Your task to perform on an android device: turn off translation in the chrome app Image 0: 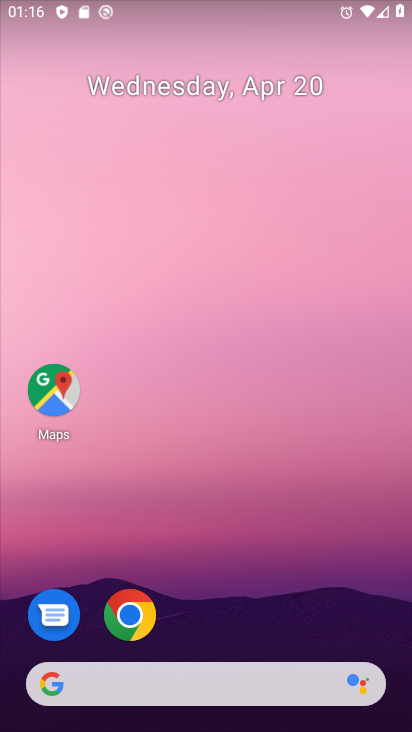
Step 0: click (350, 154)
Your task to perform on an android device: turn off translation in the chrome app Image 1: 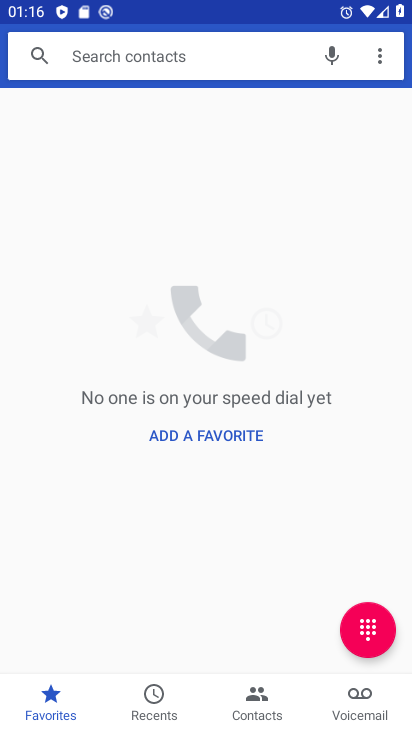
Step 1: press back button
Your task to perform on an android device: turn off translation in the chrome app Image 2: 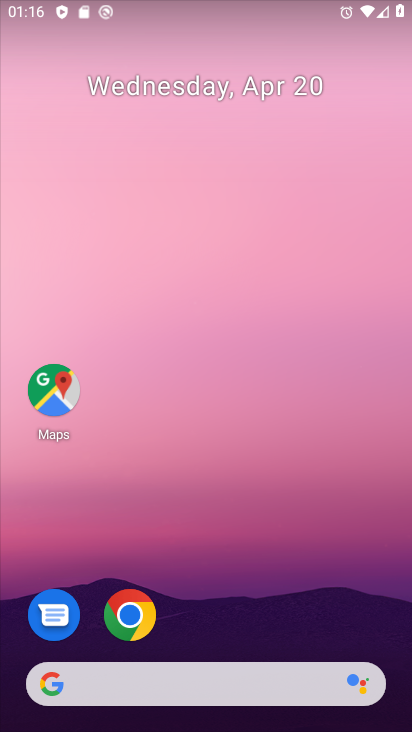
Step 2: drag from (408, 248) to (411, 26)
Your task to perform on an android device: turn off translation in the chrome app Image 3: 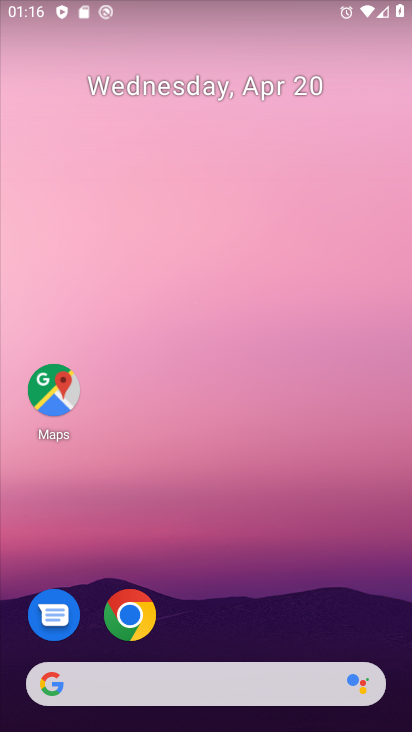
Step 3: drag from (385, 619) to (363, 188)
Your task to perform on an android device: turn off translation in the chrome app Image 4: 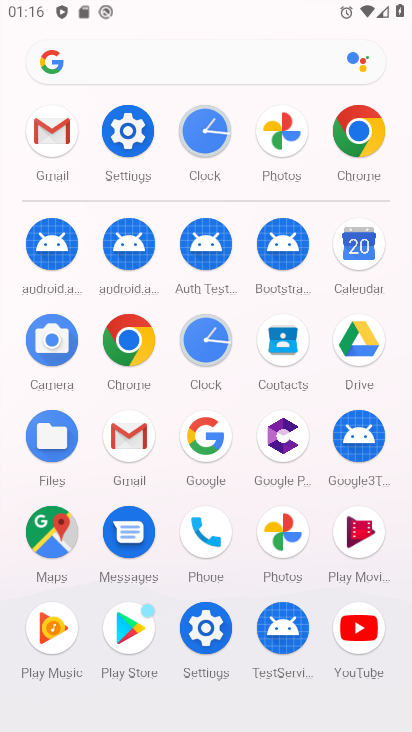
Step 4: click (133, 338)
Your task to perform on an android device: turn off translation in the chrome app Image 5: 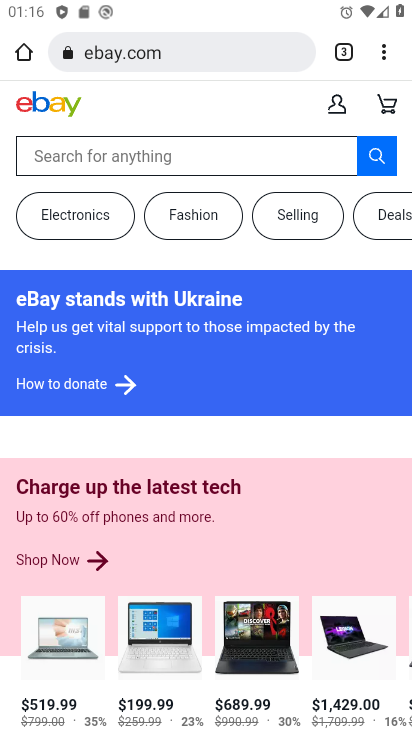
Step 5: click (383, 48)
Your task to perform on an android device: turn off translation in the chrome app Image 6: 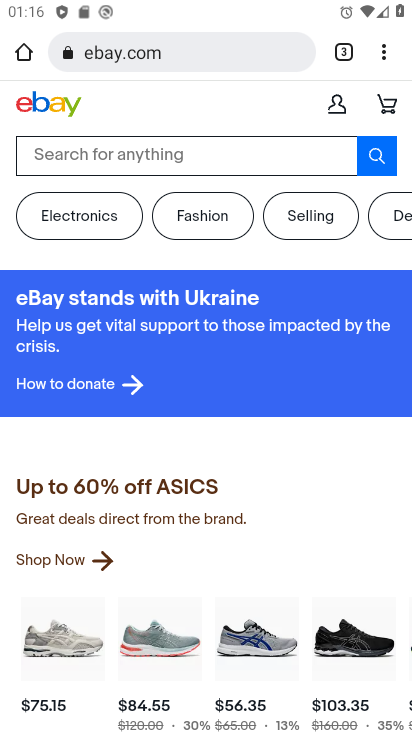
Step 6: click (383, 48)
Your task to perform on an android device: turn off translation in the chrome app Image 7: 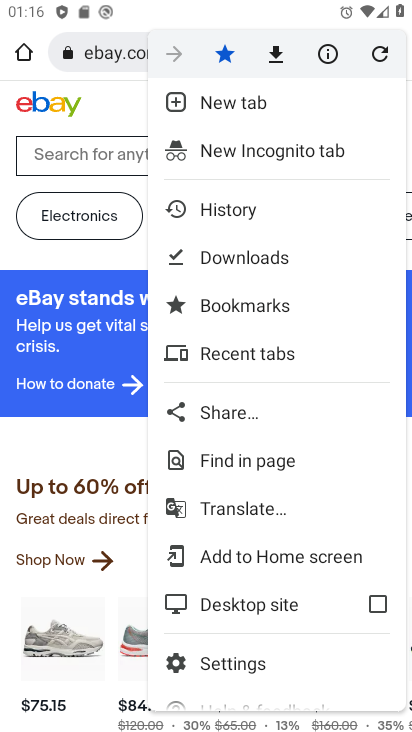
Step 7: click (204, 664)
Your task to perform on an android device: turn off translation in the chrome app Image 8: 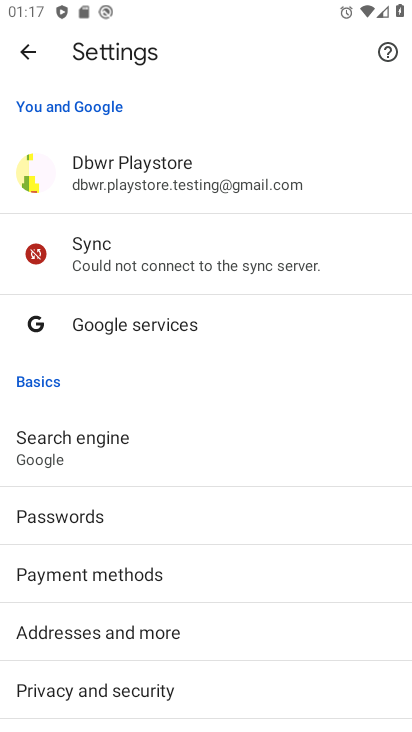
Step 8: drag from (232, 325) to (218, 250)
Your task to perform on an android device: turn off translation in the chrome app Image 9: 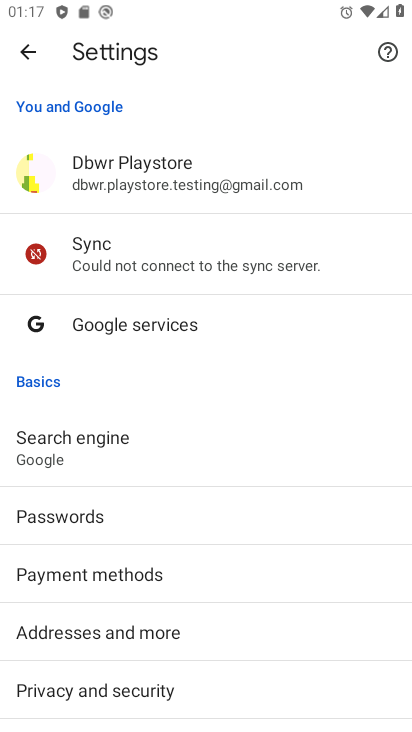
Step 9: drag from (269, 654) to (292, 260)
Your task to perform on an android device: turn off translation in the chrome app Image 10: 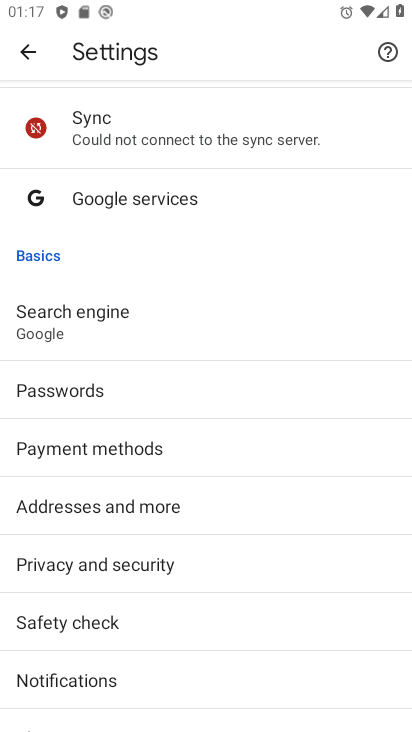
Step 10: drag from (301, 679) to (303, 259)
Your task to perform on an android device: turn off translation in the chrome app Image 11: 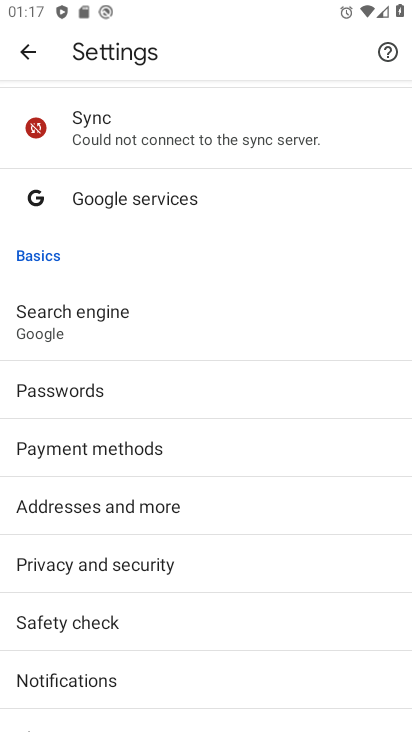
Step 11: drag from (289, 351) to (276, 194)
Your task to perform on an android device: turn off translation in the chrome app Image 12: 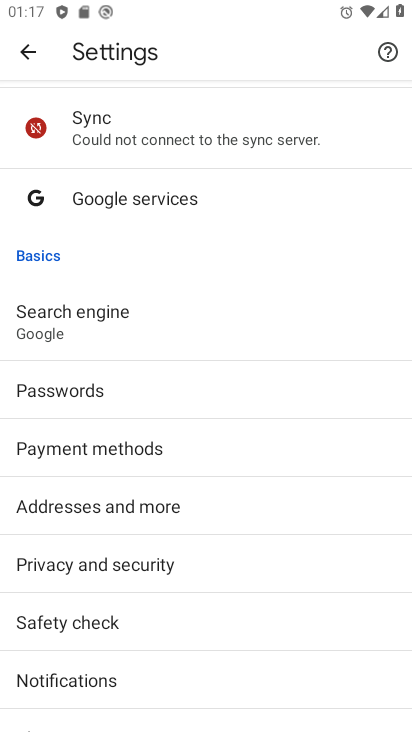
Step 12: drag from (267, 655) to (271, 181)
Your task to perform on an android device: turn off translation in the chrome app Image 13: 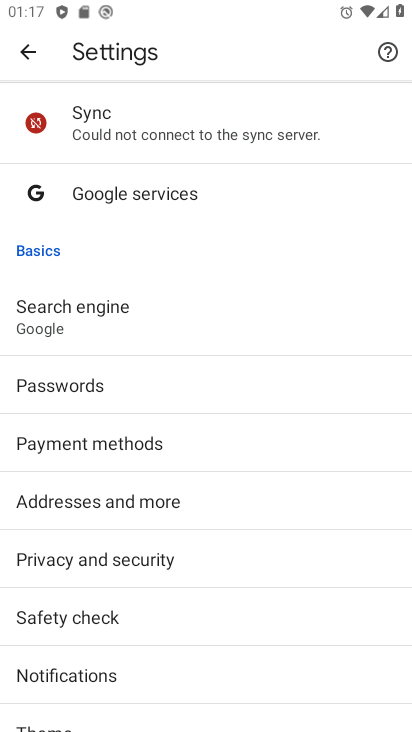
Step 13: drag from (288, 654) to (290, 184)
Your task to perform on an android device: turn off translation in the chrome app Image 14: 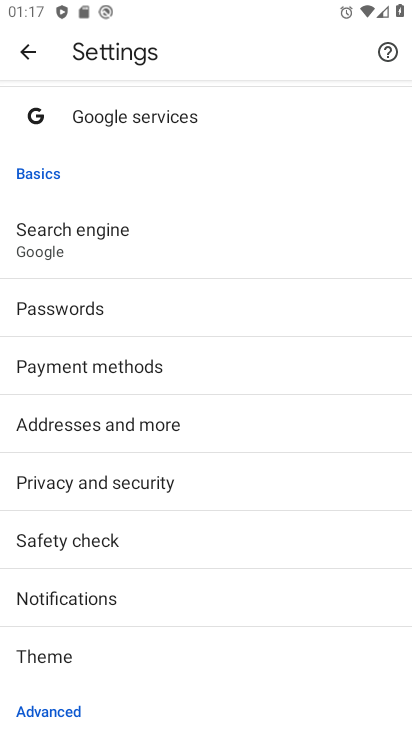
Step 14: drag from (238, 694) to (218, 300)
Your task to perform on an android device: turn off translation in the chrome app Image 15: 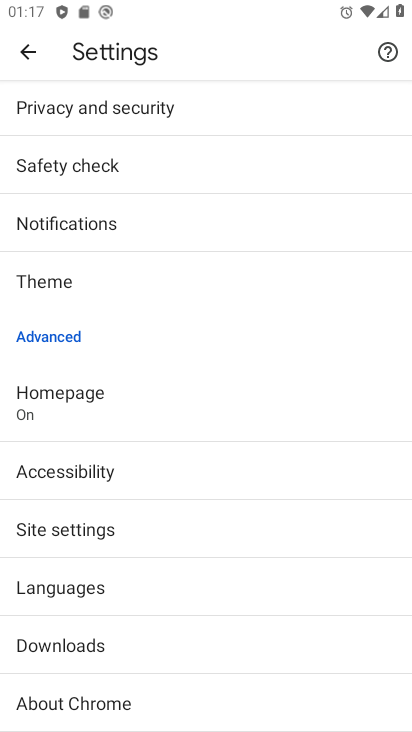
Step 15: click (68, 592)
Your task to perform on an android device: turn off translation in the chrome app Image 16: 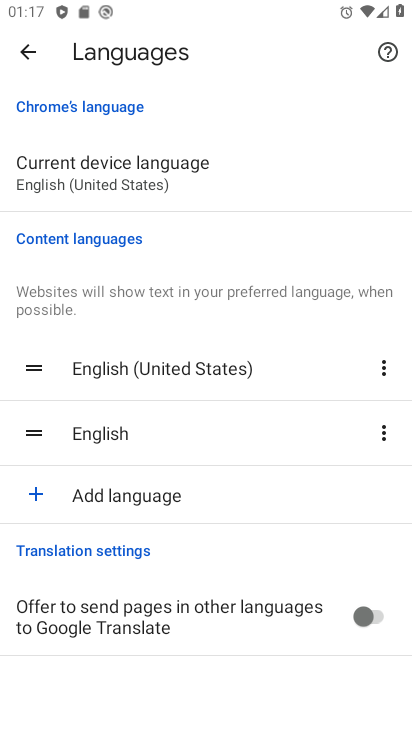
Step 16: task complete